Your task to perform on an android device: turn on notifications settings in the gmail app Image 0: 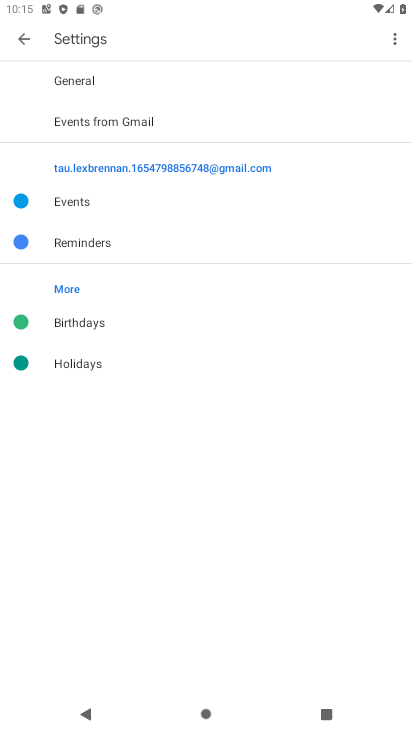
Step 0: press home button
Your task to perform on an android device: turn on notifications settings in the gmail app Image 1: 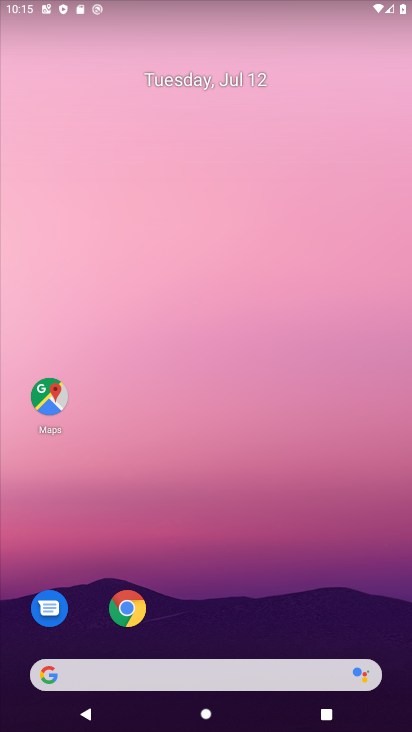
Step 1: drag from (246, 643) to (408, 507)
Your task to perform on an android device: turn on notifications settings in the gmail app Image 2: 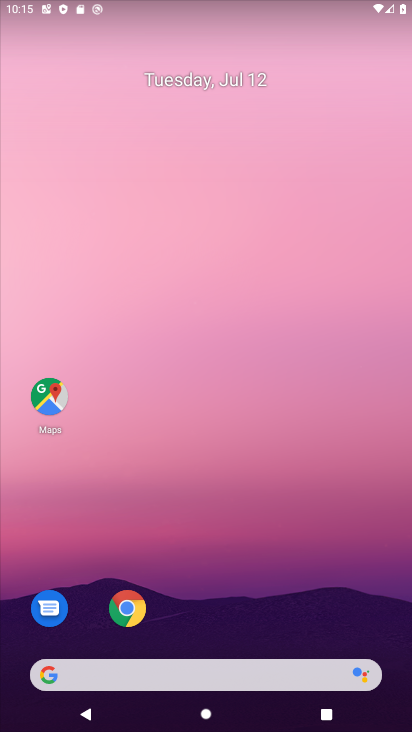
Step 2: drag from (237, 586) to (295, 0)
Your task to perform on an android device: turn on notifications settings in the gmail app Image 3: 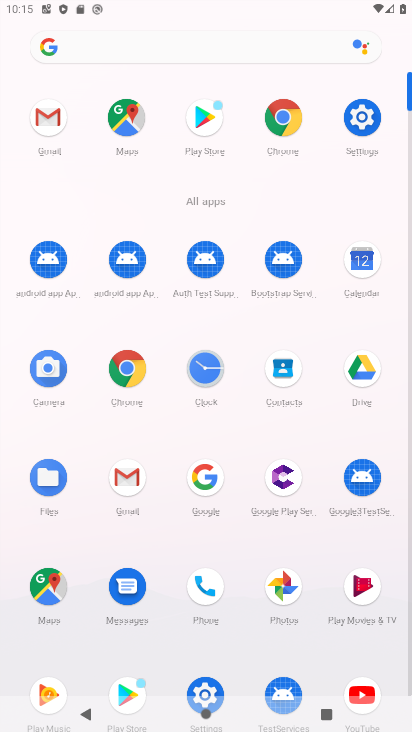
Step 3: click (45, 117)
Your task to perform on an android device: turn on notifications settings in the gmail app Image 4: 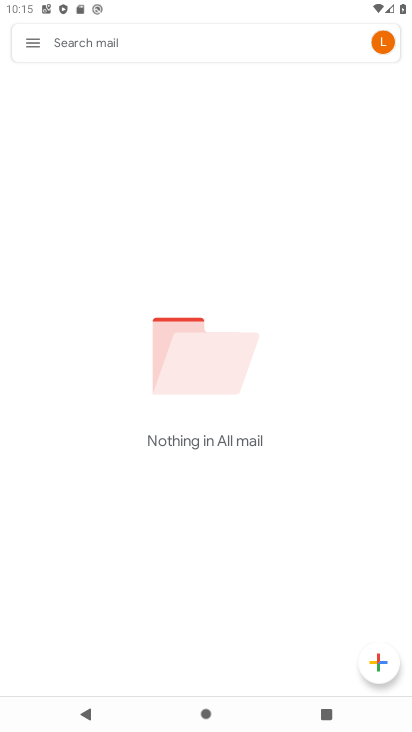
Step 4: click (36, 50)
Your task to perform on an android device: turn on notifications settings in the gmail app Image 5: 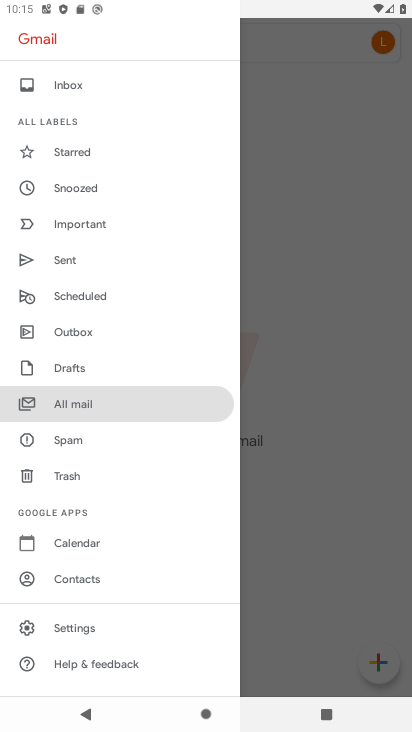
Step 5: click (104, 624)
Your task to perform on an android device: turn on notifications settings in the gmail app Image 6: 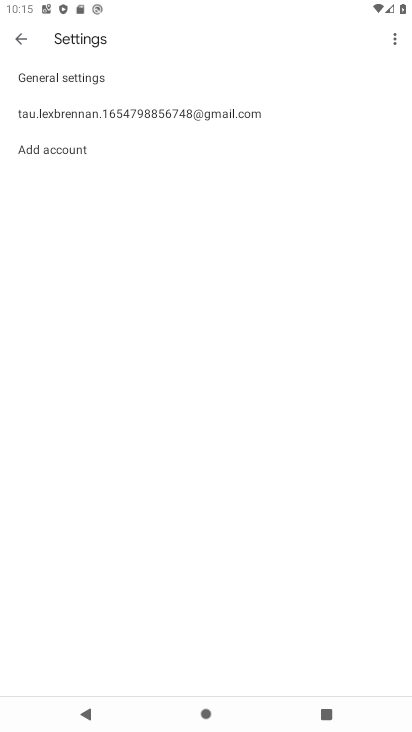
Step 6: click (218, 115)
Your task to perform on an android device: turn on notifications settings in the gmail app Image 7: 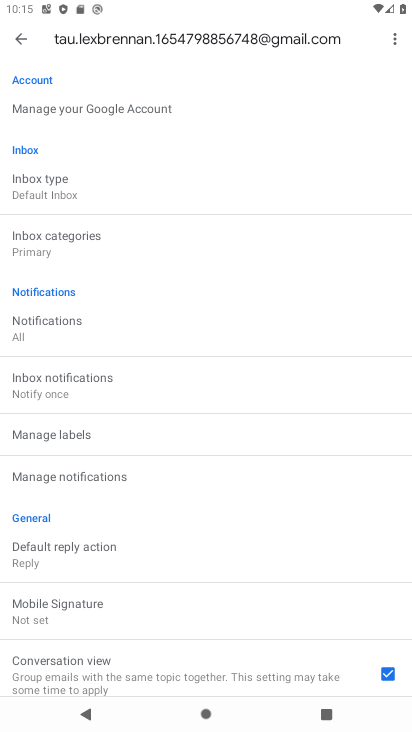
Step 7: click (56, 472)
Your task to perform on an android device: turn on notifications settings in the gmail app Image 8: 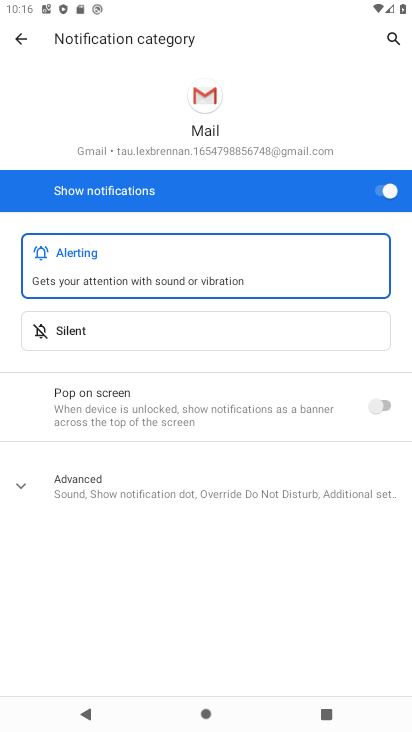
Step 8: task complete